Your task to perform on an android device: make emails show in primary in the gmail app Image 0: 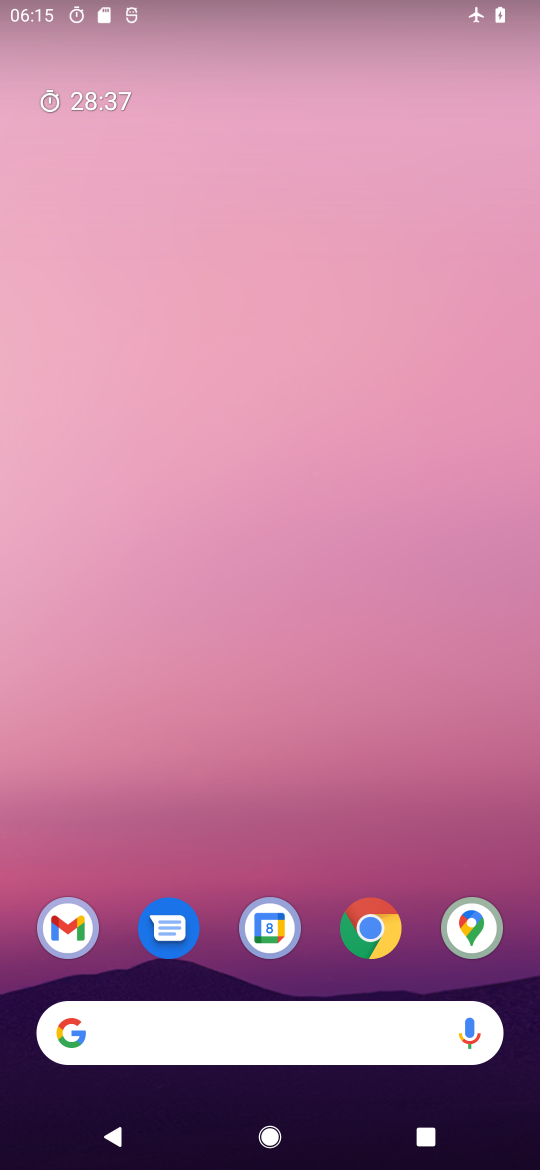
Step 0: click (60, 934)
Your task to perform on an android device: make emails show in primary in the gmail app Image 1: 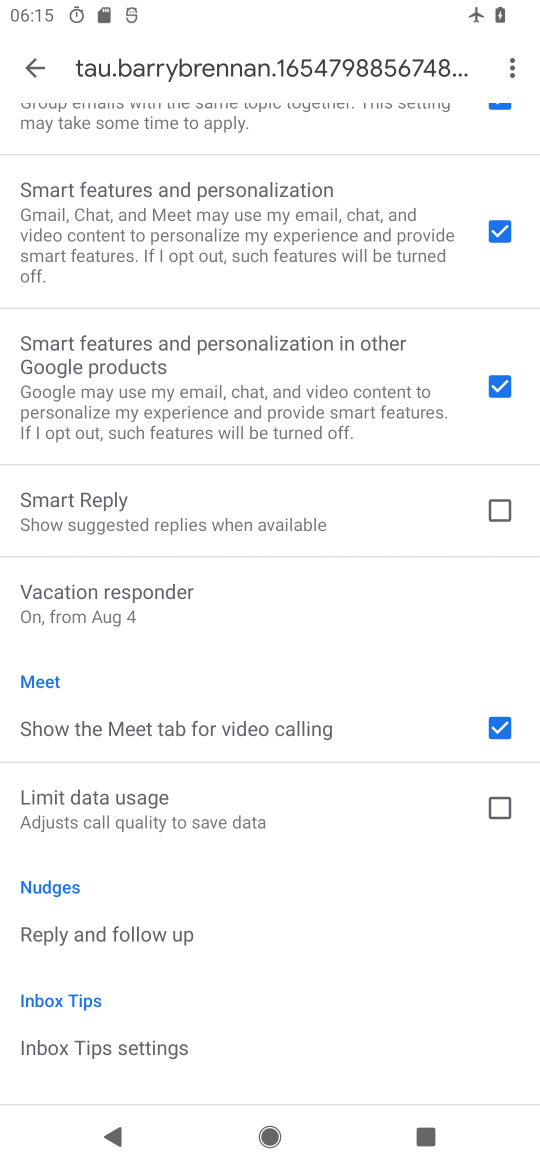
Step 1: click (33, 57)
Your task to perform on an android device: make emails show in primary in the gmail app Image 2: 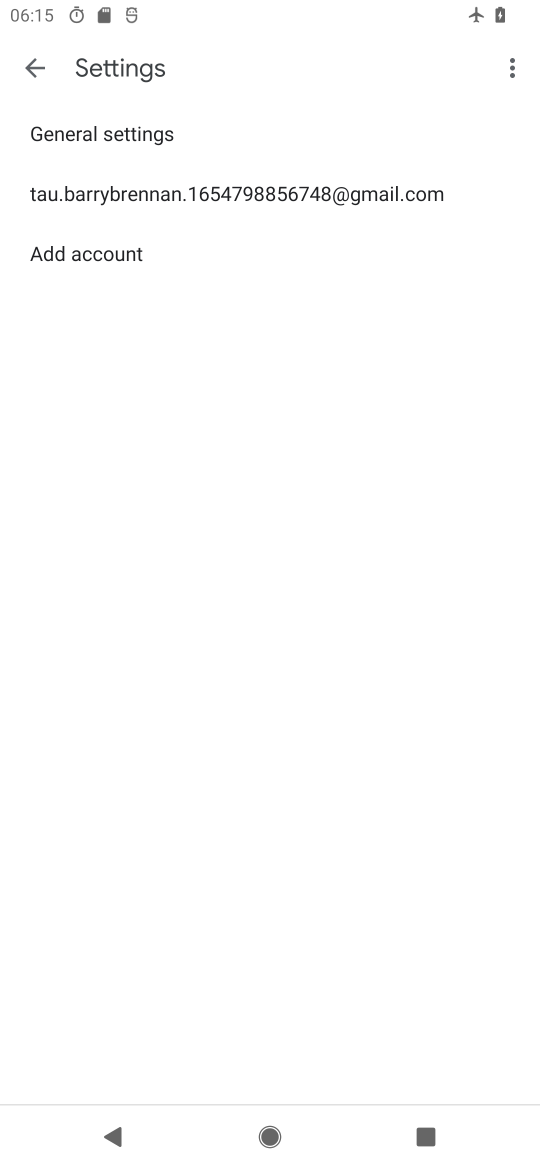
Step 2: click (172, 186)
Your task to perform on an android device: make emails show in primary in the gmail app Image 3: 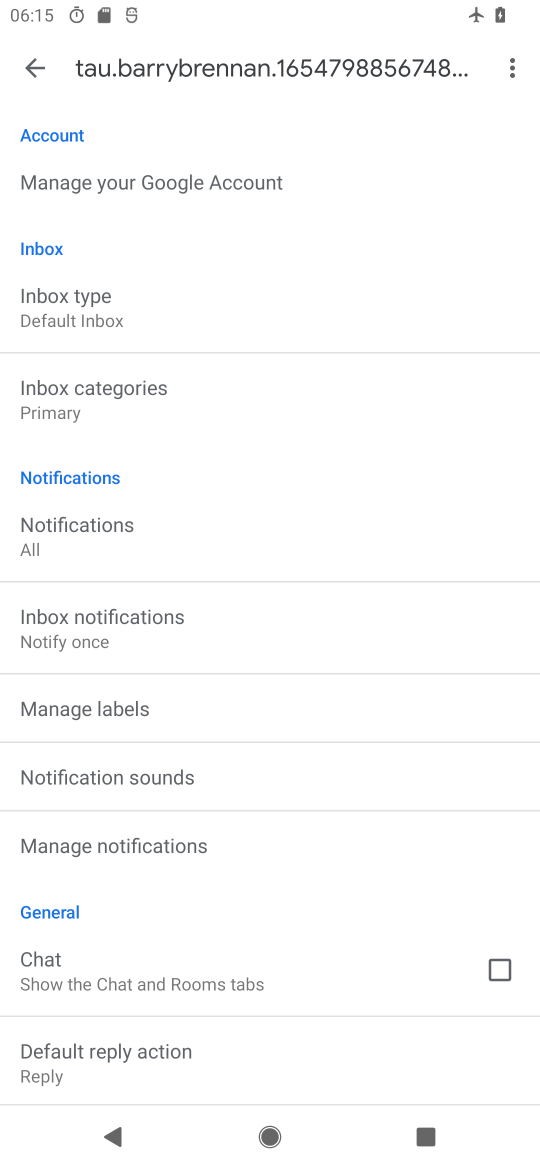
Step 3: task complete